Your task to perform on an android device: Open Google Maps and go to "Timeline" Image 0: 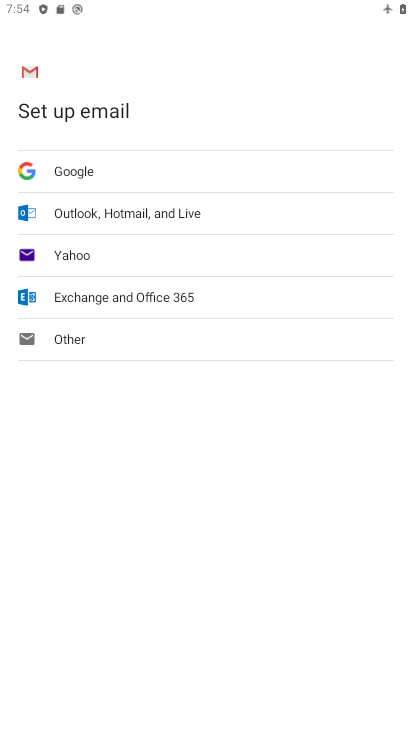
Step 0: press home button
Your task to perform on an android device: Open Google Maps and go to "Timeline" Image 1: 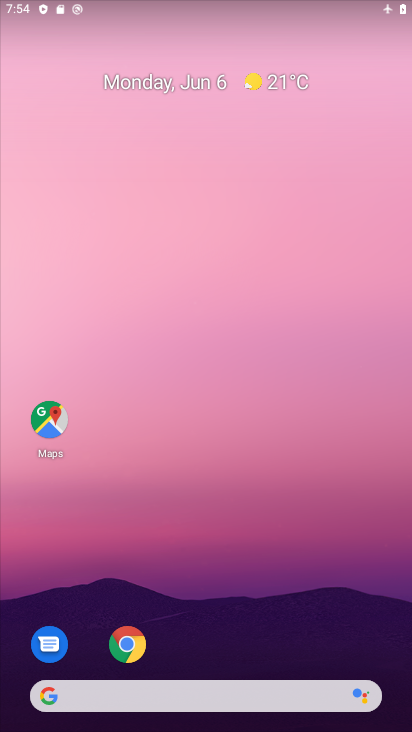
Step 1: drag from (220, 689) to (185, 145)
Your task to perform on an android device: Open Google Maps and go to "Timeline" Image 2: 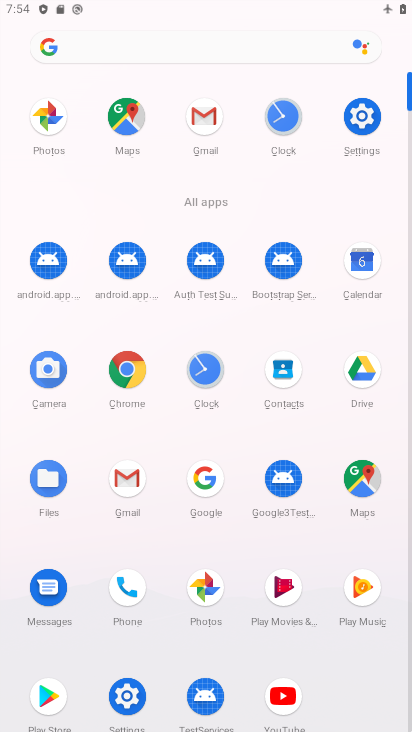
Step 2: click (365, 474)
Your task to perform on an android device: Open Google Maps and go to "Timeline" Image 3: 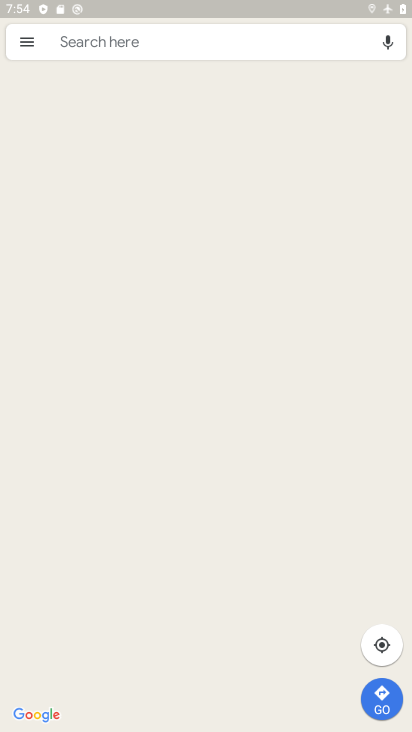
Step 3: click (29, 36)
Your task to perform on an android device: Open Google Maps and go to "Timeline" Image 4: 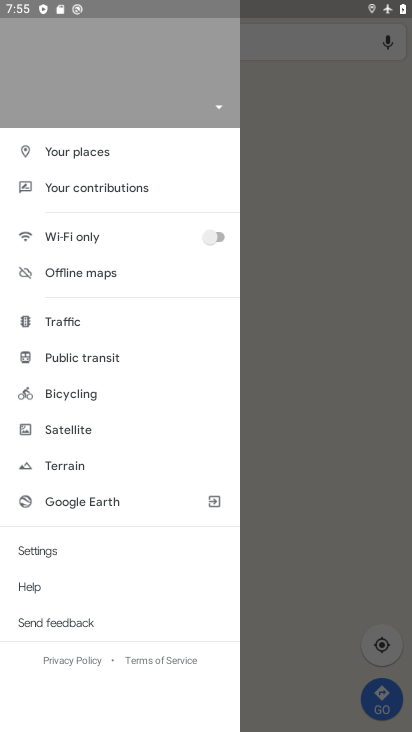
Step 4: task complete